Your task to perform on an android device: Open Chrome and go to settings Image 0: 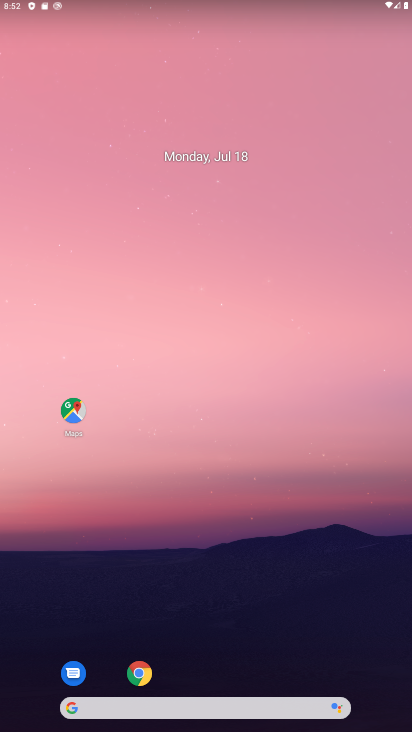
Step 0: drag from (249, 642) to (296, 0)
Your task to perform on an android device: Open Chrome and go to settings Image 1: 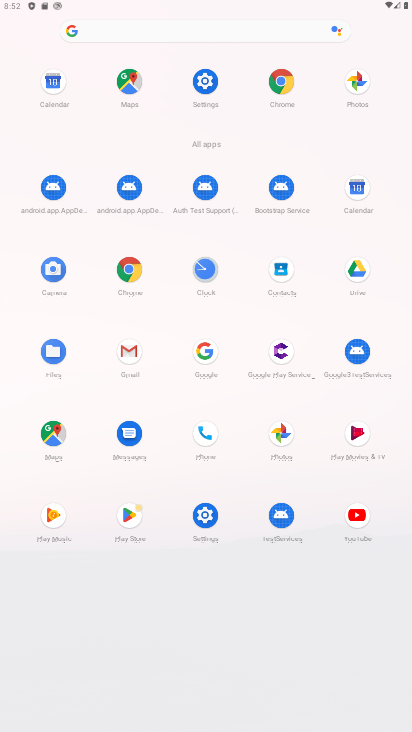
Step 1: click (277, 86)
Your task to perform on an android device: Open Chrome and go to settings Image 2: 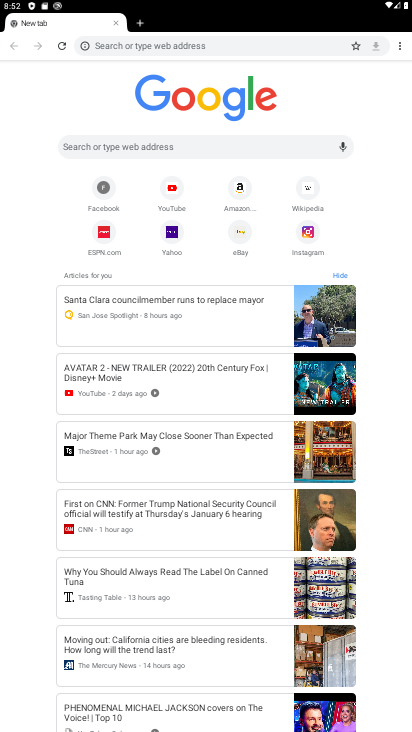
Step 2: task complete